Your task to perform on an android device: Search for the best rated headphones on AliExpress. Image 0: 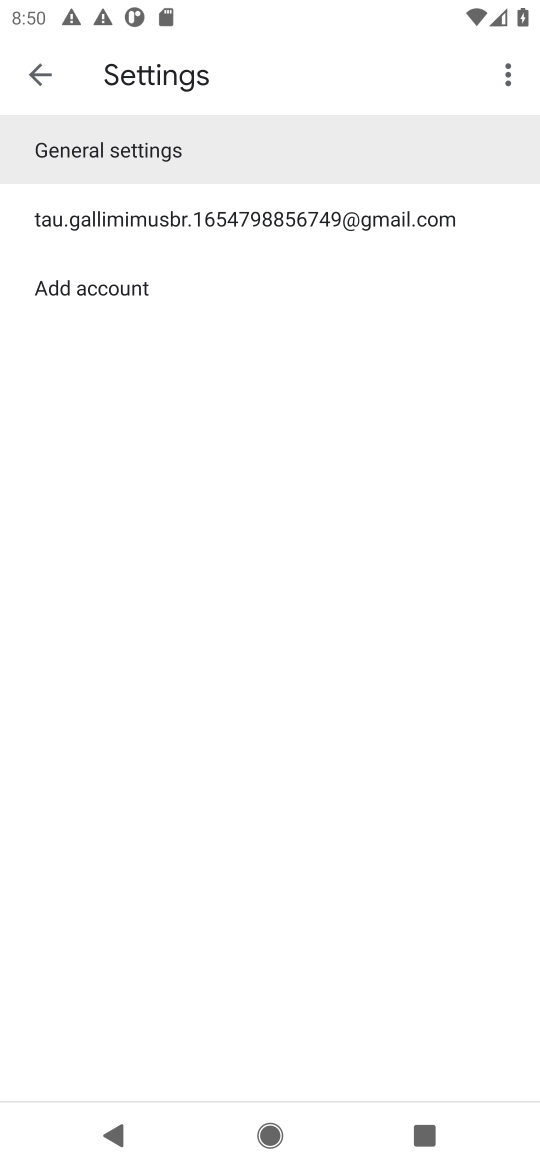
Step 0: press home button
Your task to perform on an android device: Search for the best rated headphones on AliExpress. Image 1: 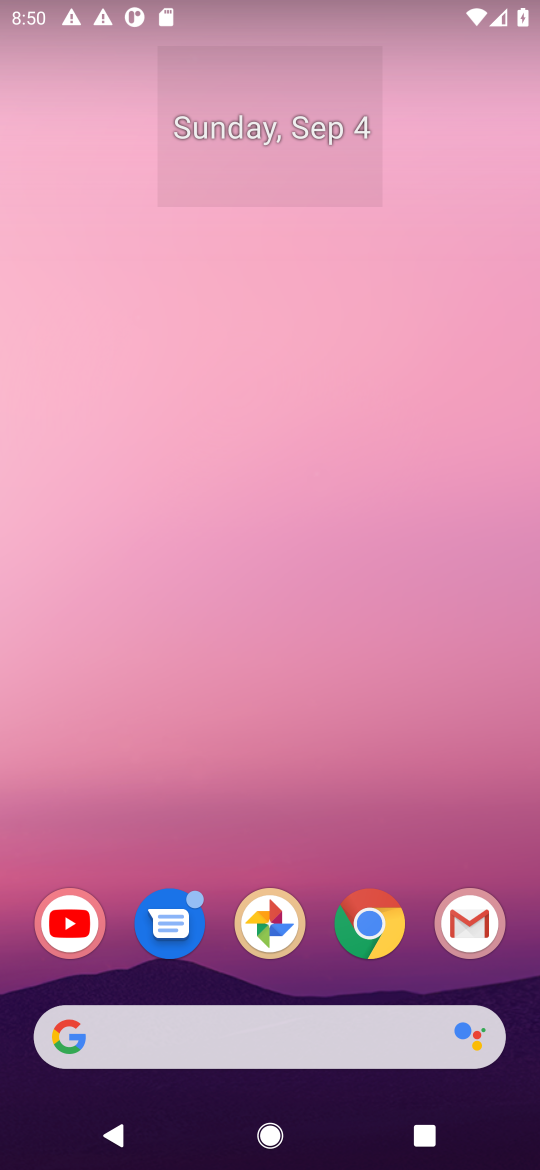
Step 1: click (384, 916)
Your task to perform on an android device: Search for the best rated headphones on AliExpress. Image 2: 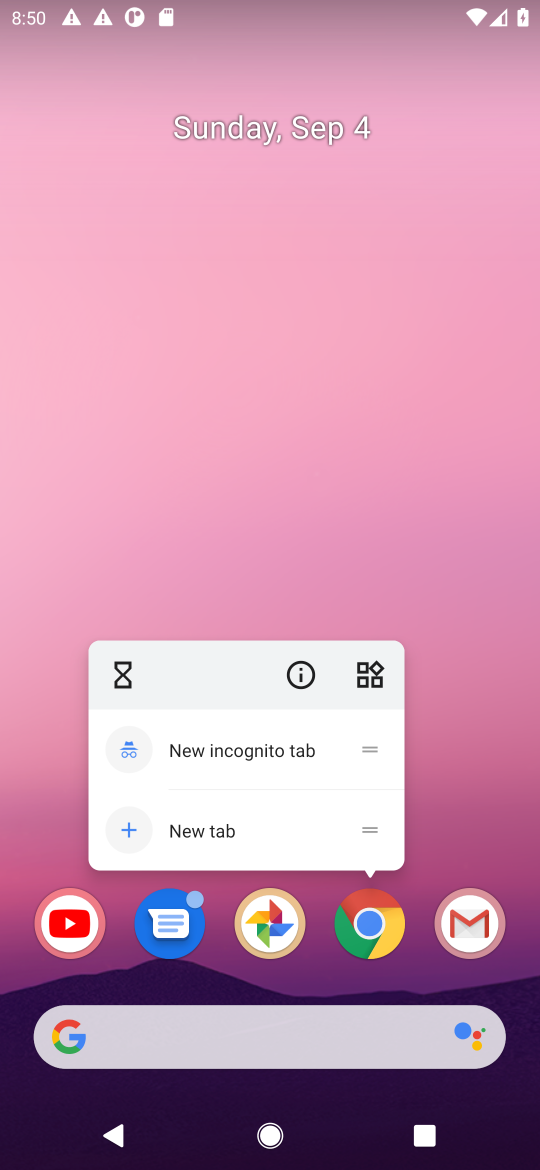
Step 2: click (384, 916)
Your task to perform on an android device: Search for the best rated headphones on AliExpress. Image 3: 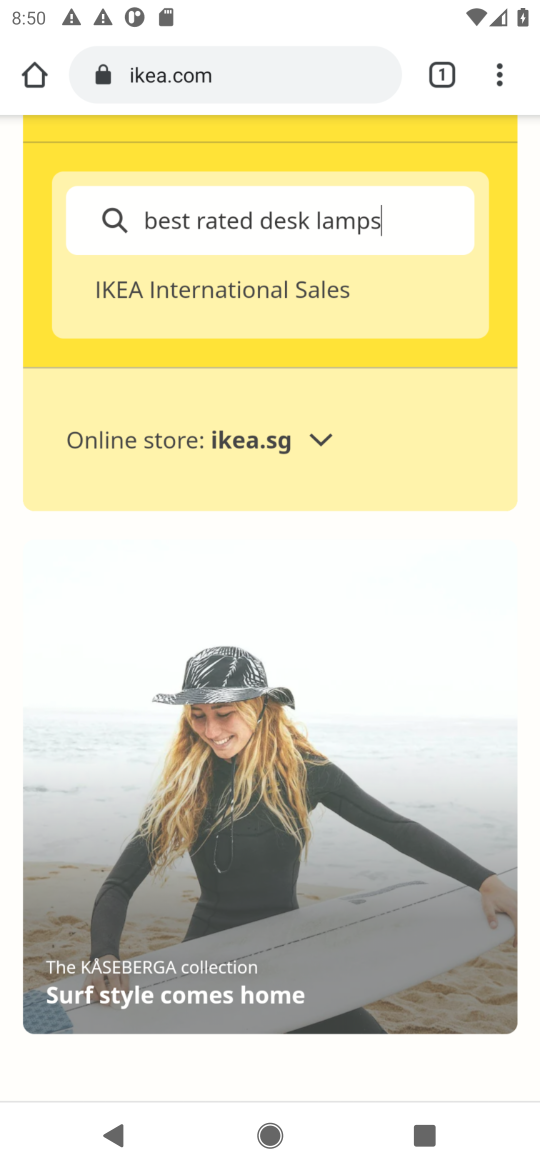
Step 3: click (240, 65)
Your task to perform on an android device: Search for the best rated headphones on AliExpress. Image 4: 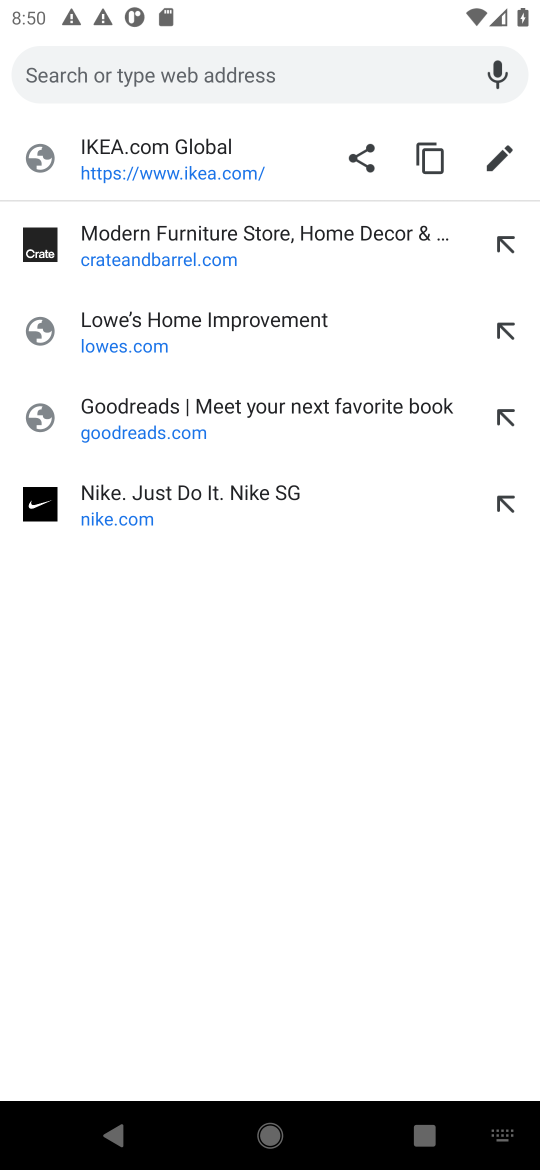
Step 4: type "aliexpress"
Your task to perform on an android device: Search for the best rated headphones on AliExpress. Image 5: 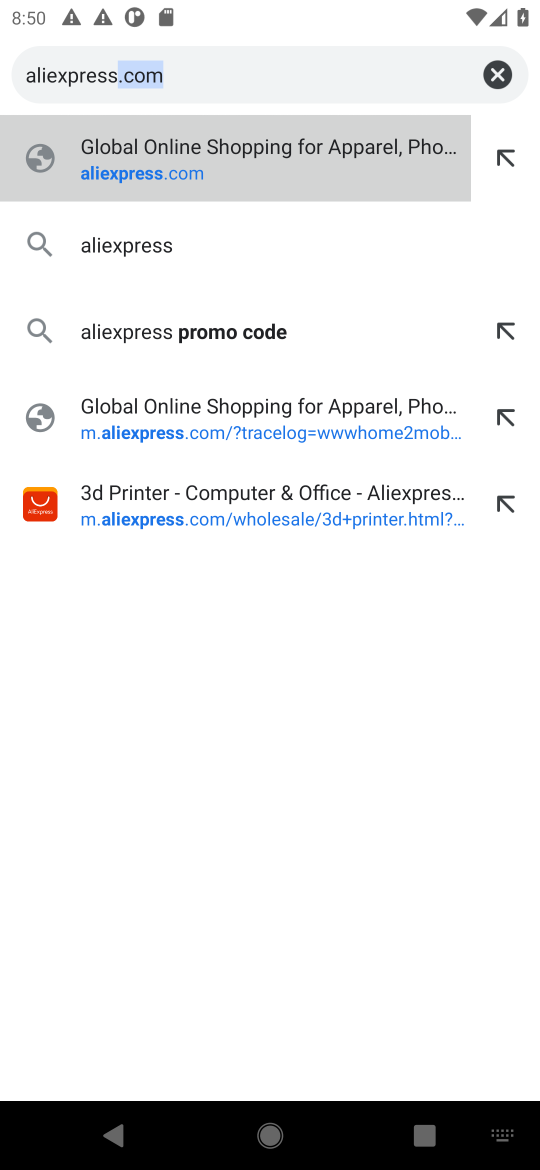
Step 5: click (204, 175)
Your task to perform on an android device: Search for the best rated headphones on AliExpress. Image 6: 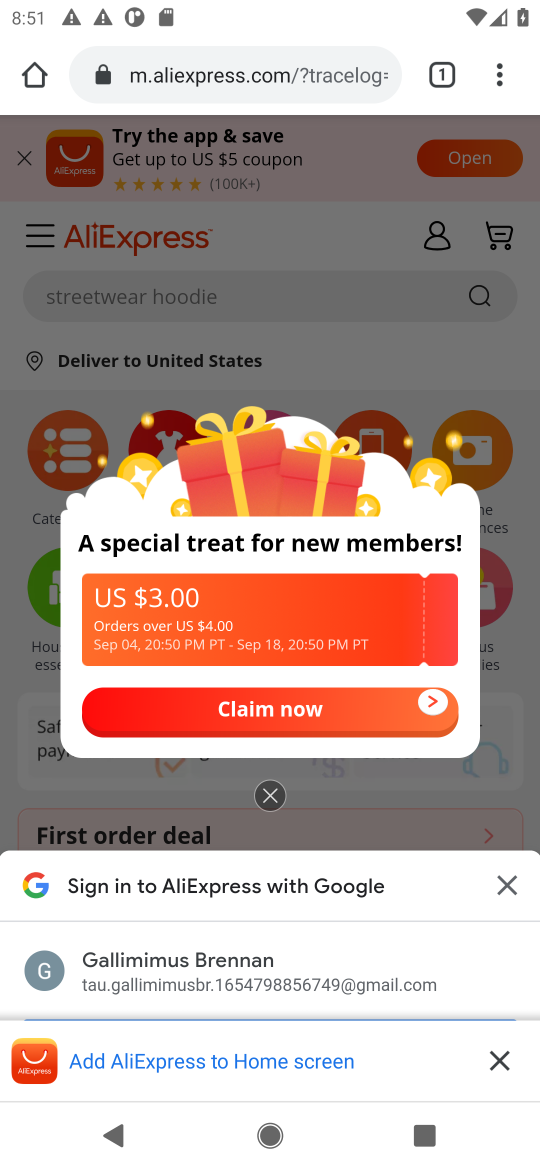
Step 6: click (501, 1065)
Your task to perform on an android device: Search for the best rated headphones on AliExpress. Image 7: 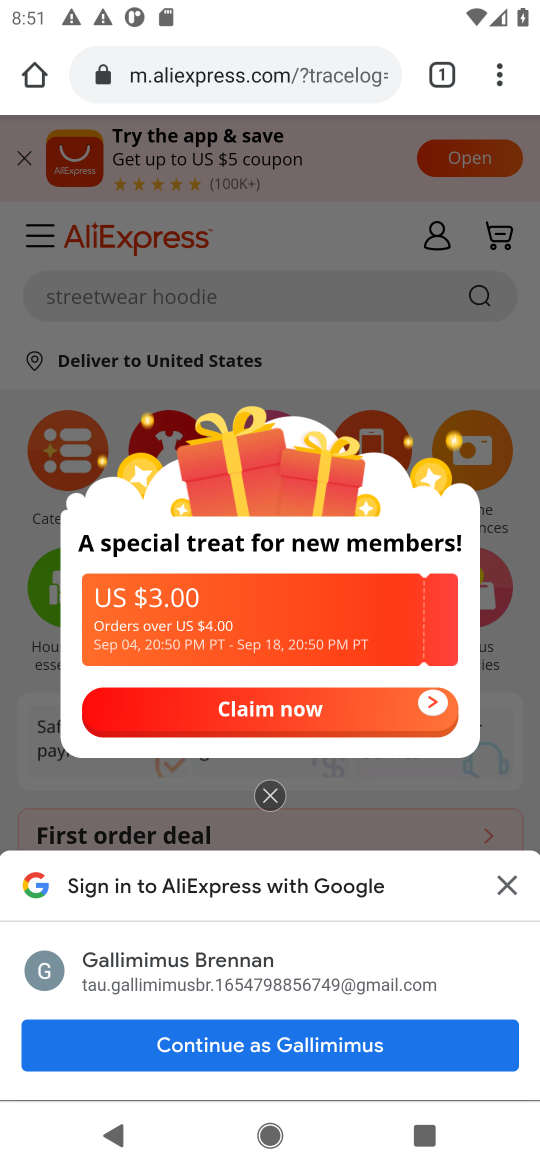
Step 7: click (378, 1046)
Your task to perform on an android device: Search for the best rated headphones on AliExpress. Image 8: 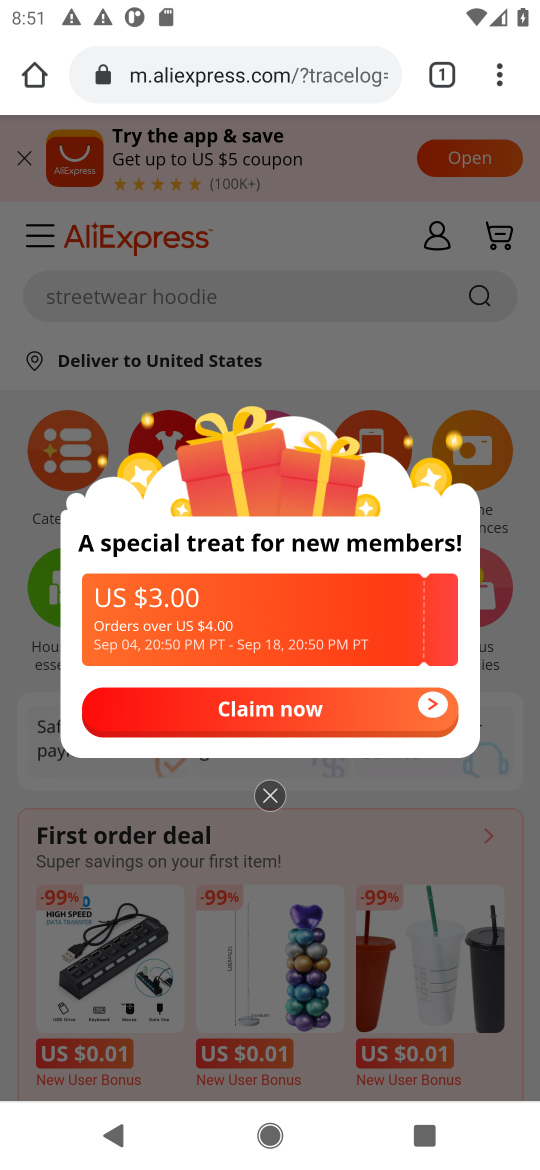
Step 8: click (274, 805)
Your task to perform on an android device: Search for the best rated headphones on AliExpress. Image 9: 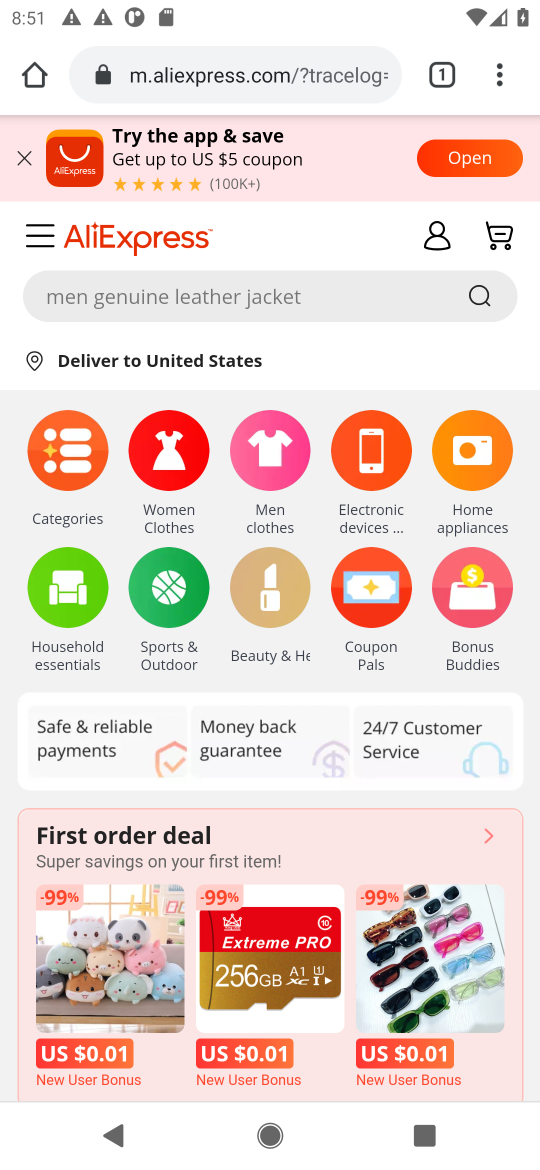
Step 9: click (372, 297)
Your task to perform on an android device: Search for the best rated headphones on AliExpress. Image 10: 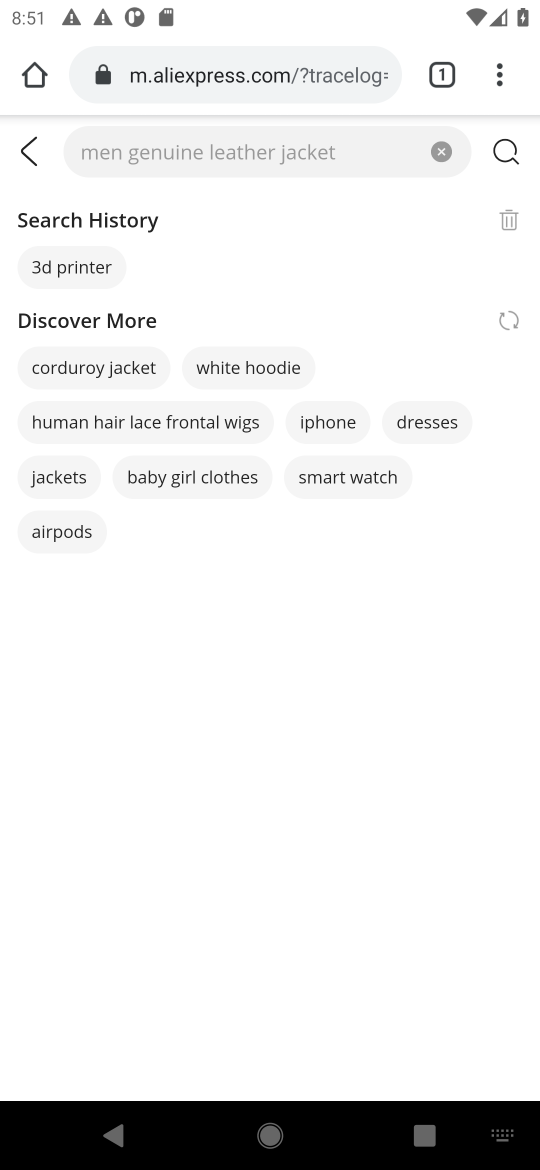
Step 10: type "best rated headphones"
Your task to perform on an android device: Search for the best rated headphones on AliExpress. Image 11: 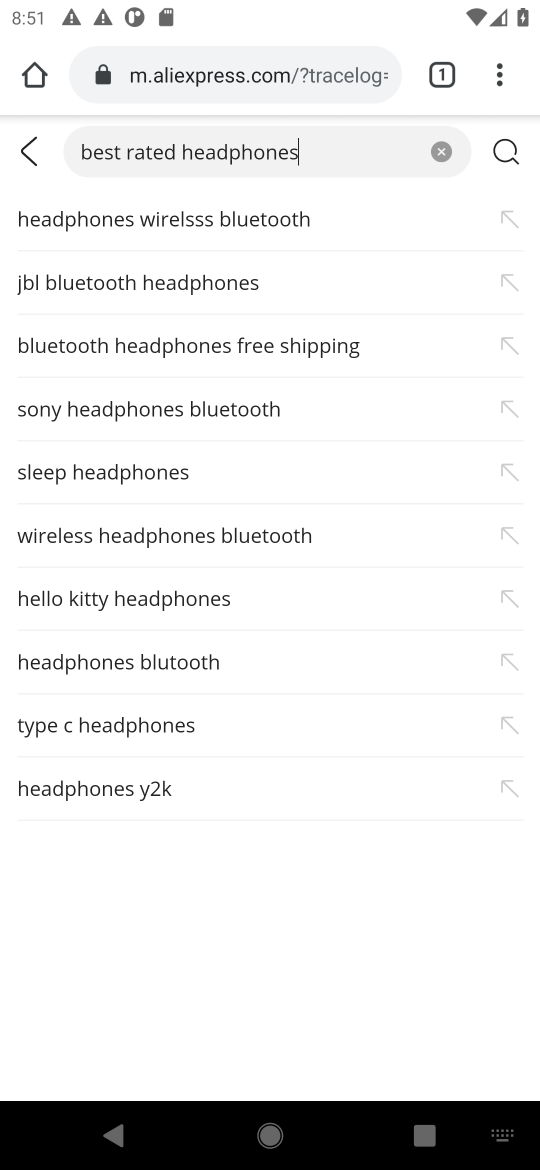
Step 11: press enter
Your task to perform on an android device: Search for the best rated headphones on AliExpress. Image 12: 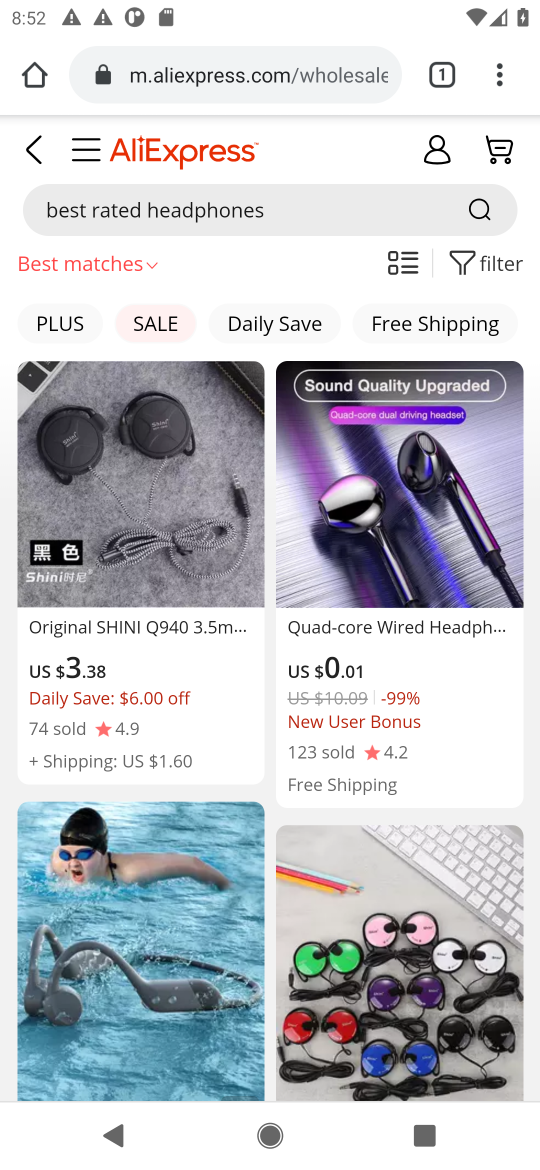
Step 12: task complete